Your task to perform on an android device: add a contact in the contacts app Image 0: 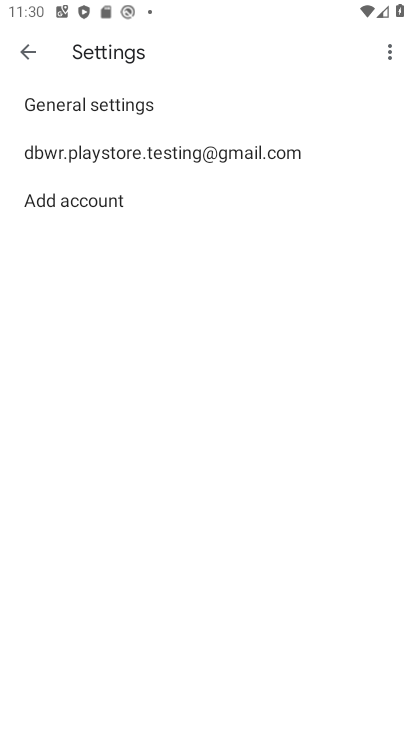
Step 0: press home button
Your task to perform on an android device: add a contact in the contacts app Image 1: 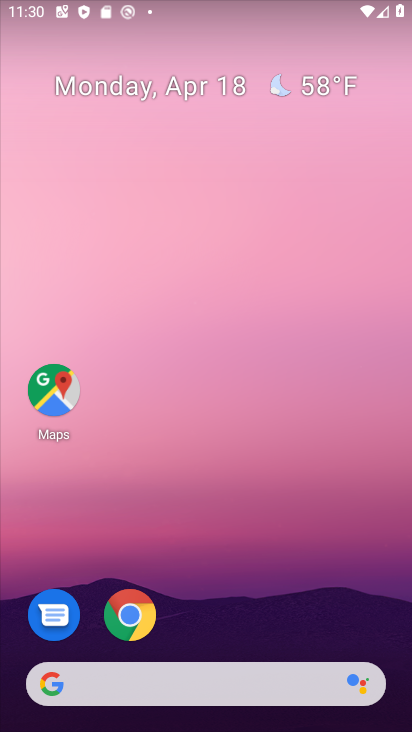
Step 1: drag from (341, 601) to (311, 117)
Your task to perform on an android device: add a contact in the contacts app Image 2: 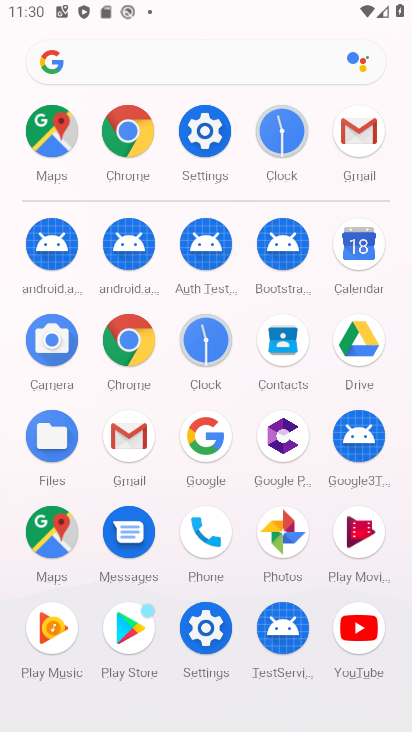
Step 2: click (291, 346)
Your task to perform on an android device: add a contact in the contacts app Image 3: 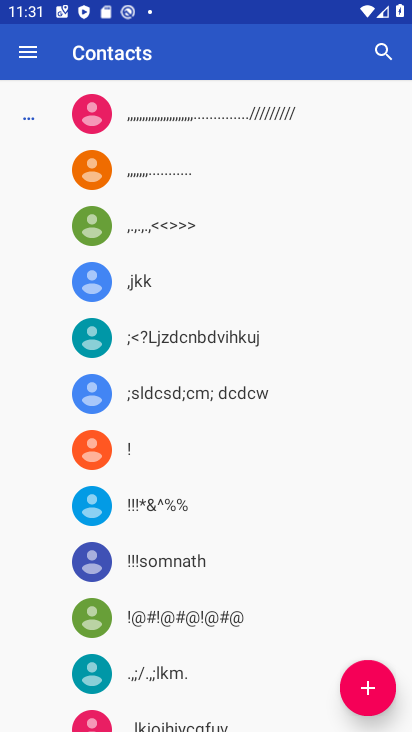
Step 3: click (370, 692)
Your task to perform on an android device: add a contact in the contacts app Image 4: 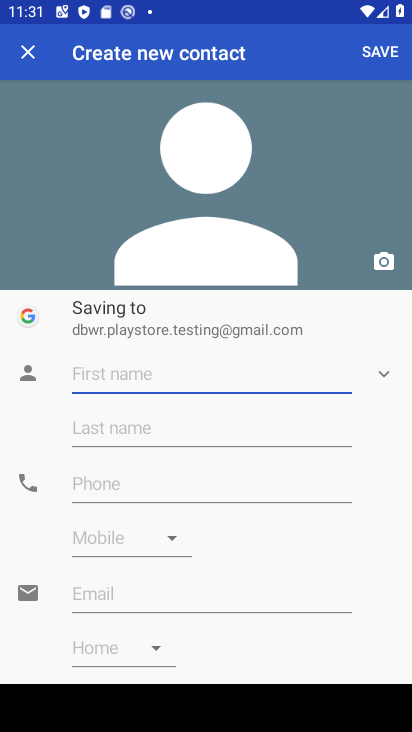
Step 4: type "lol"
Your task to perform on an android device: add a contact in the contacts app Image 5: 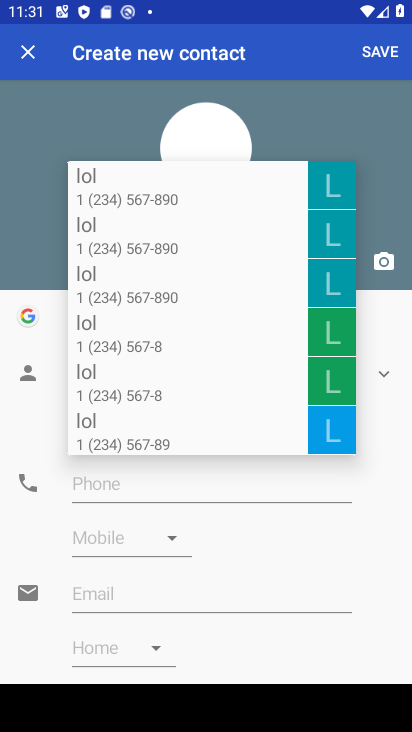
Step 5: click (377, 318)
Your task to perform on an android device: add a contact in the contacts app Image 6: 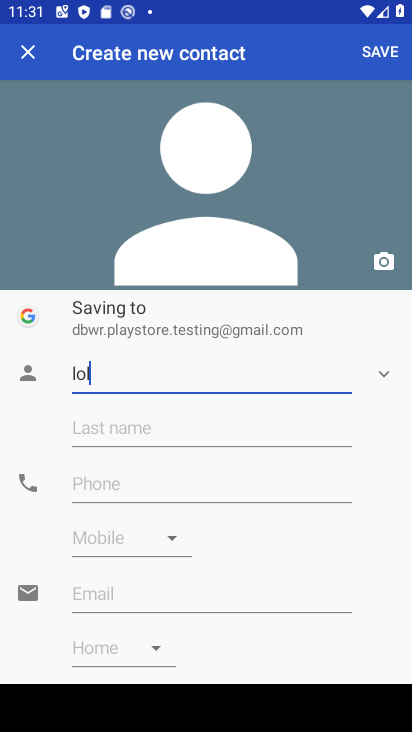
Step 6: click (220, 495)
Your task to perform on an android device: add a contact in the contacts app Image 7: 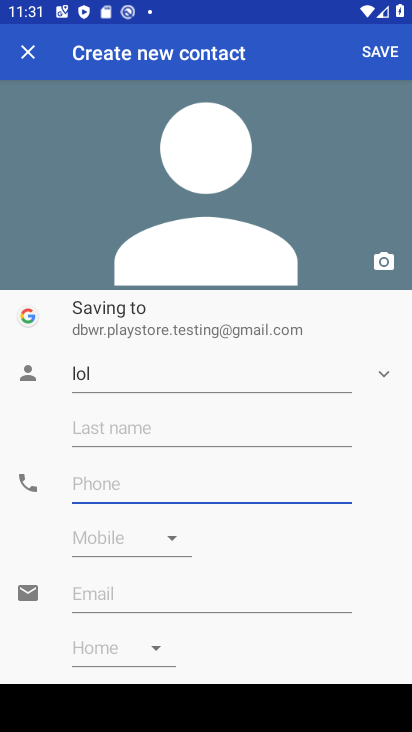
Step 7: type "123456789"
Your task to perform on an android device: add a contact in the contacts app Image 8: 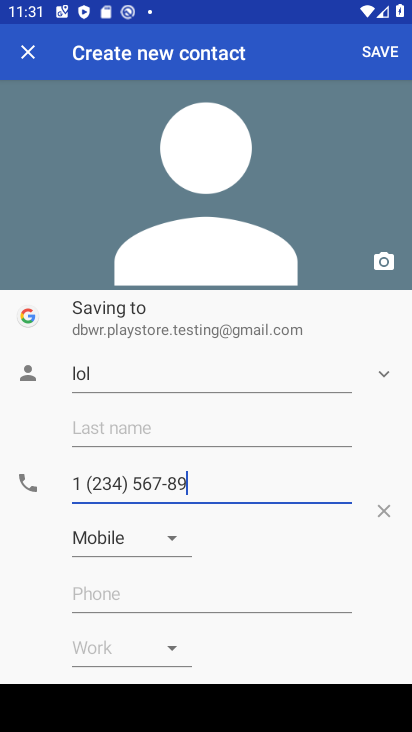
Step 8: click (381, 50)
Your task to perform on an android device: add a contact in the contacts app Image 9: 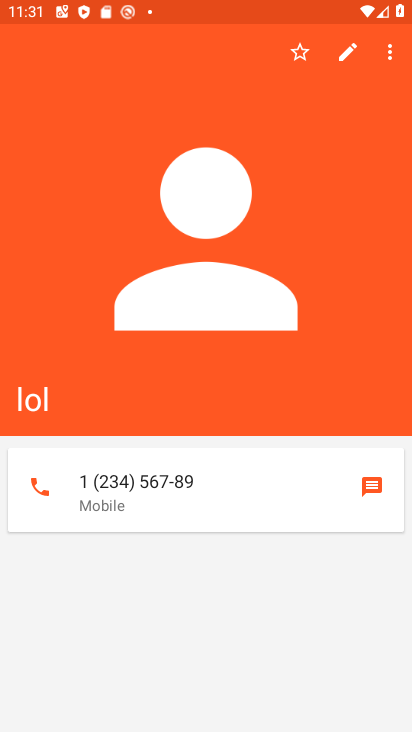
Step 9: task complete